Your task to perform on an android device: Open Android settings Image 0: 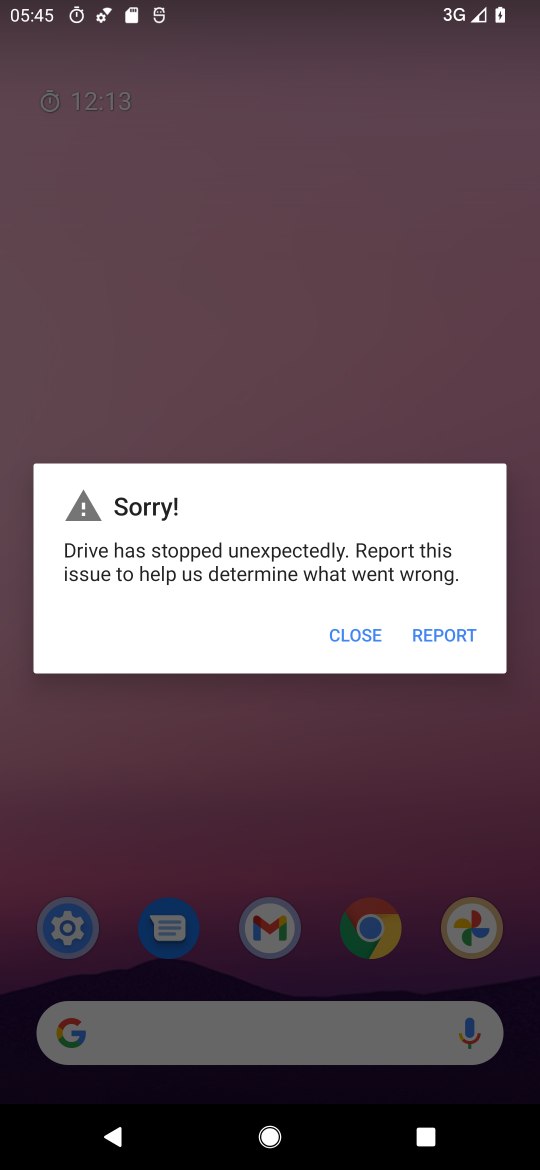
Step 0: click (358, 625)
Your task to perform on an android device: Open Android settings Image 1: 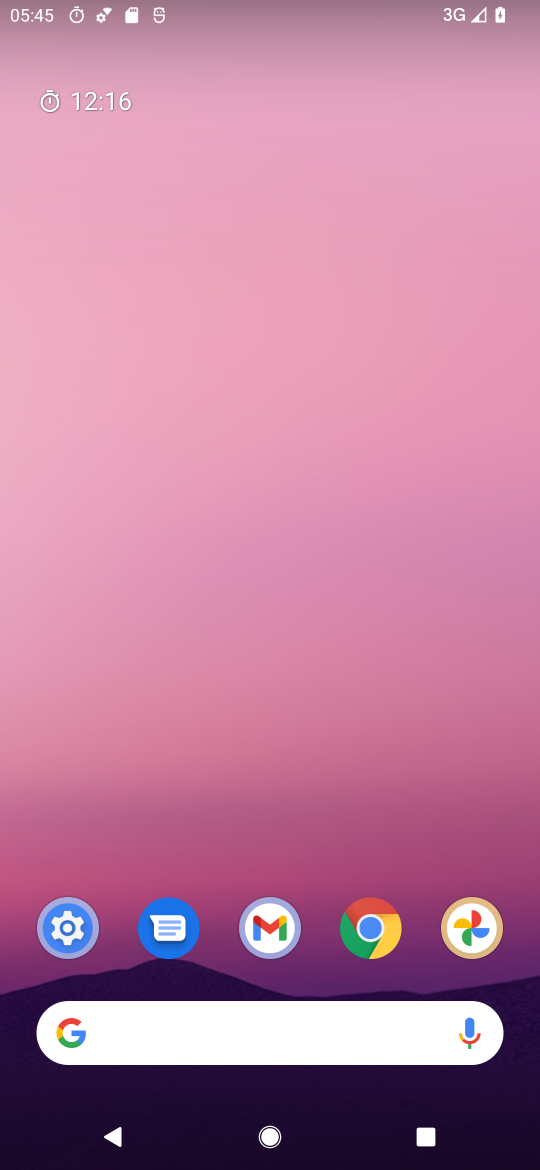
Step 1: drag from (224, 989) to (273, 437)
Your task to perform on an android device: Open Android settings Image 2: 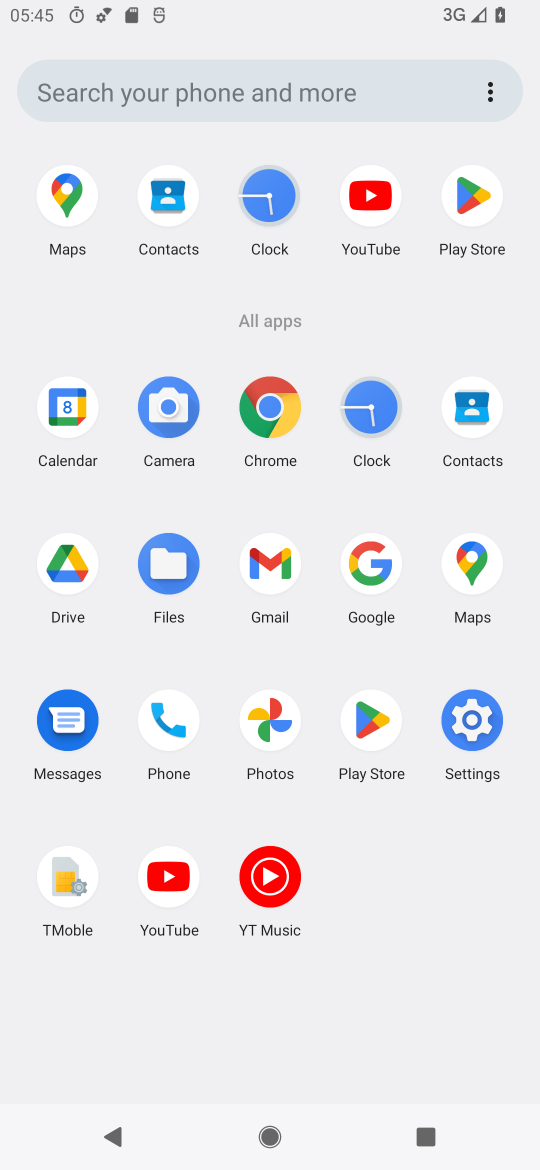
Step 2: click (462, 749)
Your task to perform on an android device: Open Android settings Image 3: 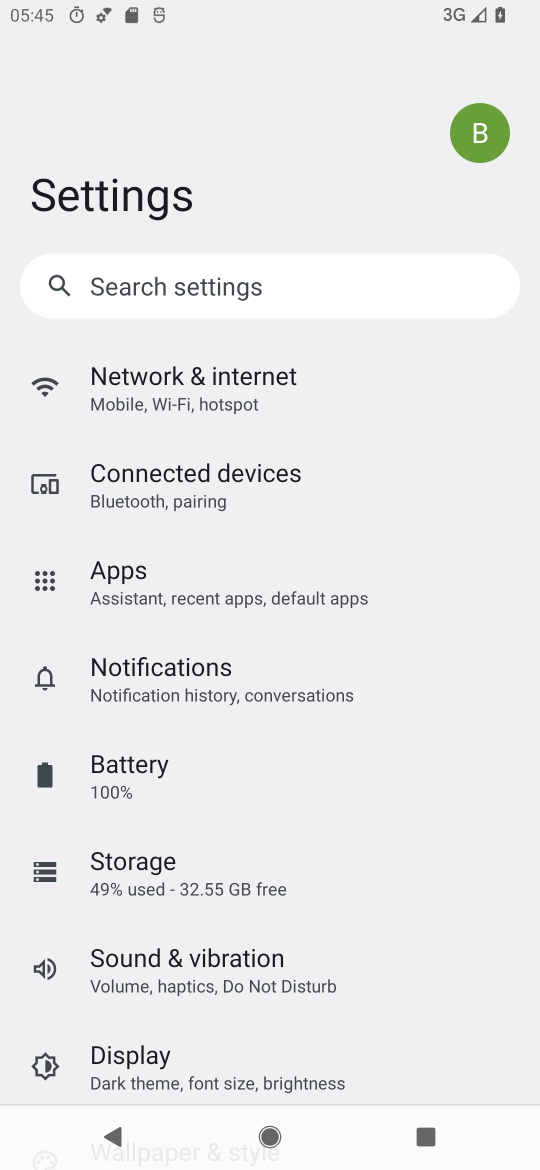
Step 3: drag from (255, 969) to (277, 461)
Your task to perform on an android device: Open Android settings Image 4: 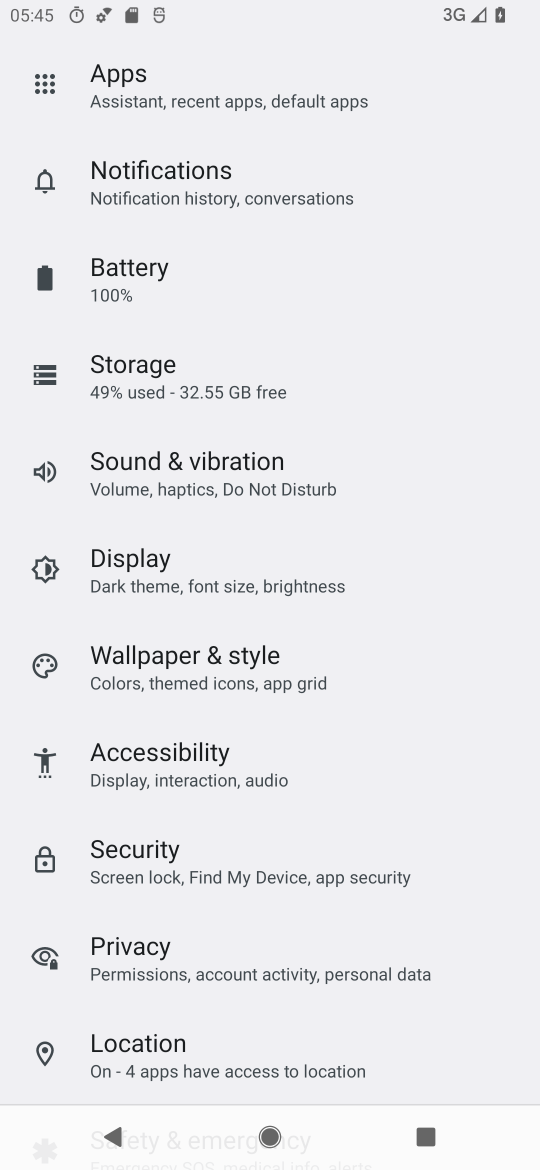
Step 4: drag from (278, 975) to (298, 431)
Your task to perform on an android device: Open Android settings Image 5: 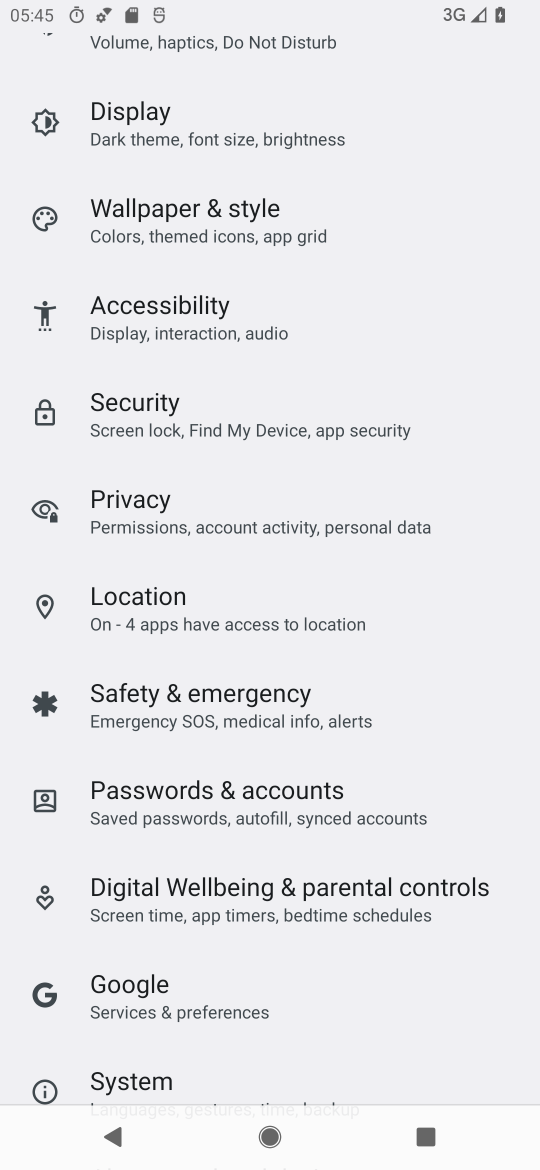
Step 5: drag from (282, 982) to (298, 488)
Your task to perform on an android device: Open Android settings Image 6: 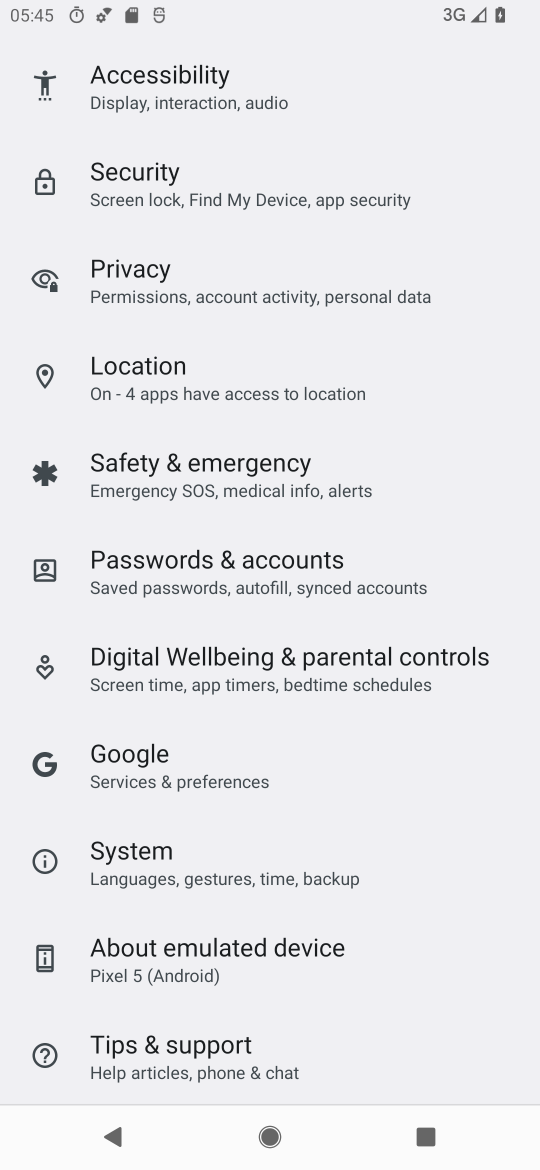
Step 6: drag from (276, 980) to (307, 686)
Your task to perform on an android device: Open Android settings Image 7: 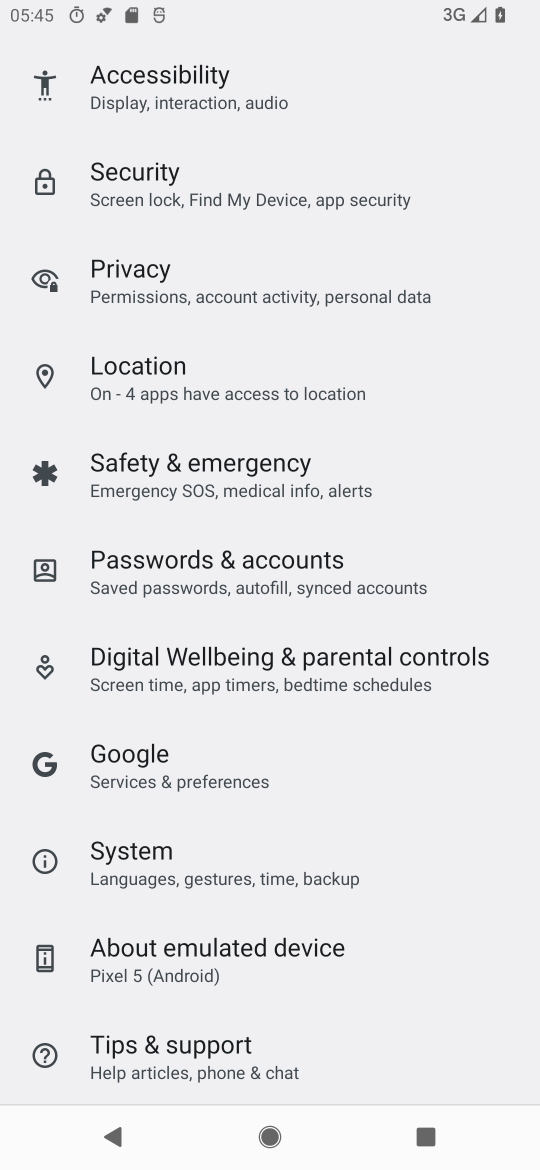
Step 7: click (211, 978)
Your task to perform on an android device: Open Android settings Image 8: 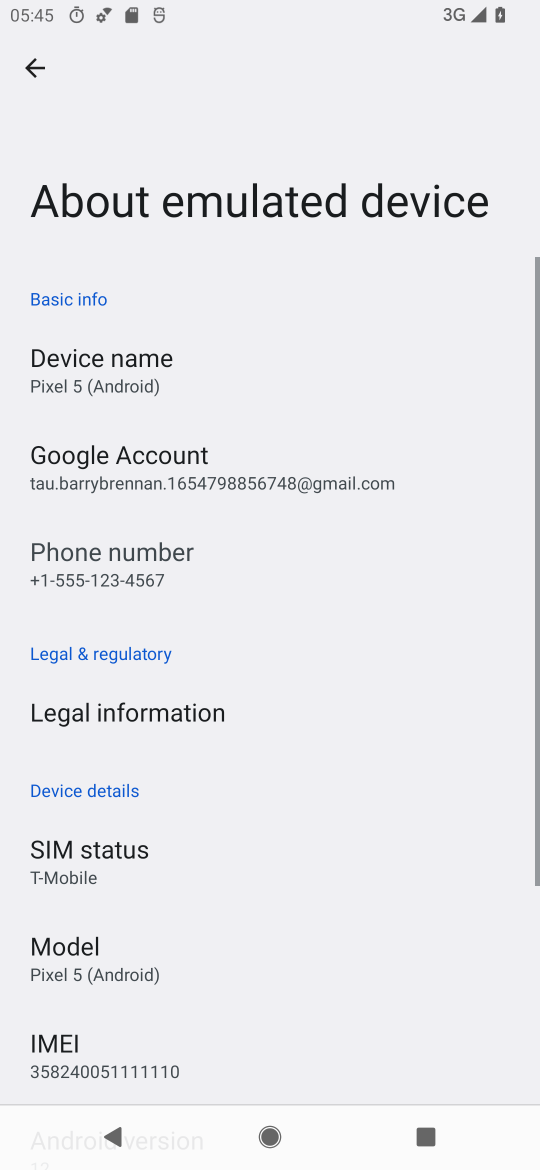
Step 8: task complete